Your task to perform on an android device: Open settings on Google Maps Image 0: 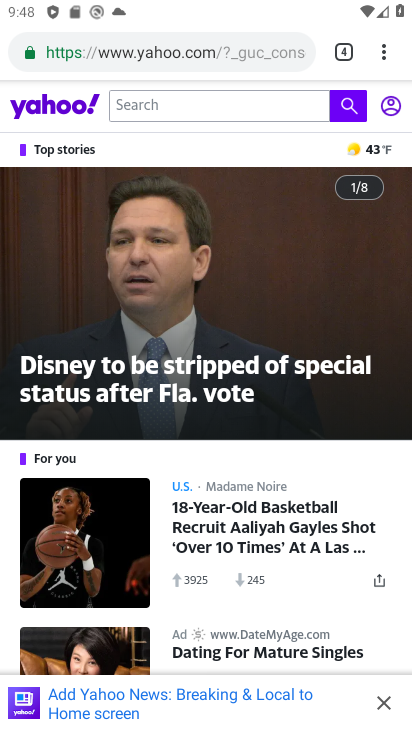
Step 0: press home button
Your task to perform on an android device: Open settings on Google Maps Image 1: 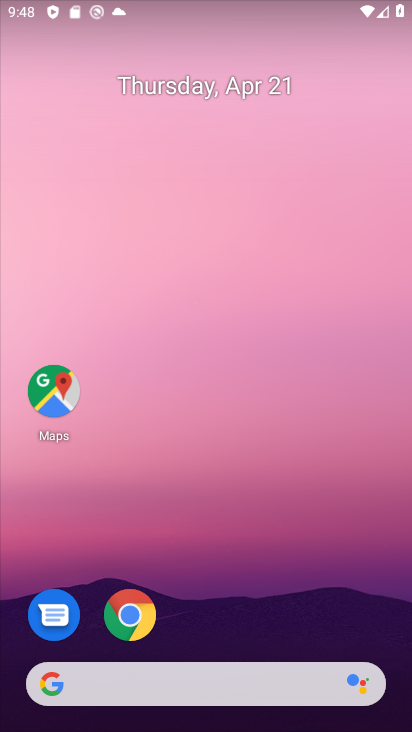
Step 1: drag from (196, 700) to (200, 121)
Your task to perform on an android device: Open settings on Google Maps Image 2: 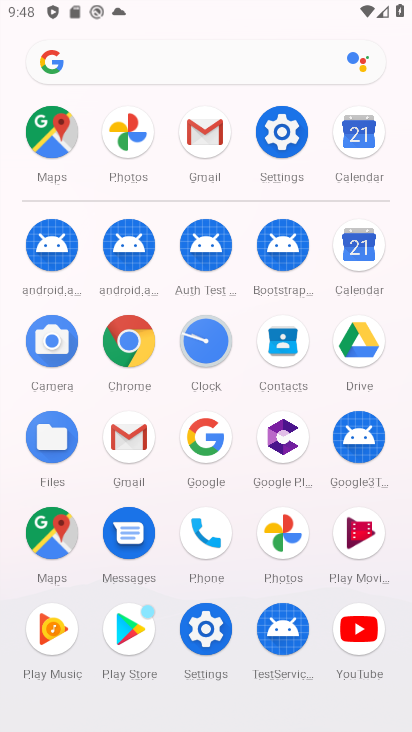
Step 2: click (51, 529)
Your task to perform on an android device: Open settings on Google Maps Image 3: 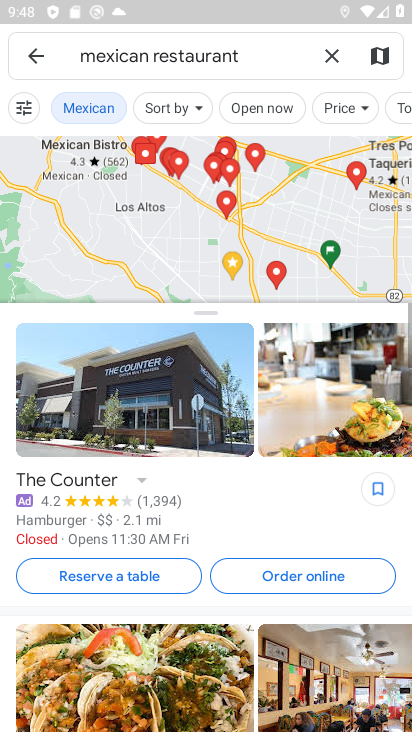
Step 3: click (35, 57)
Your task to perform on an android device: Open settings on Google Maps Image 4: 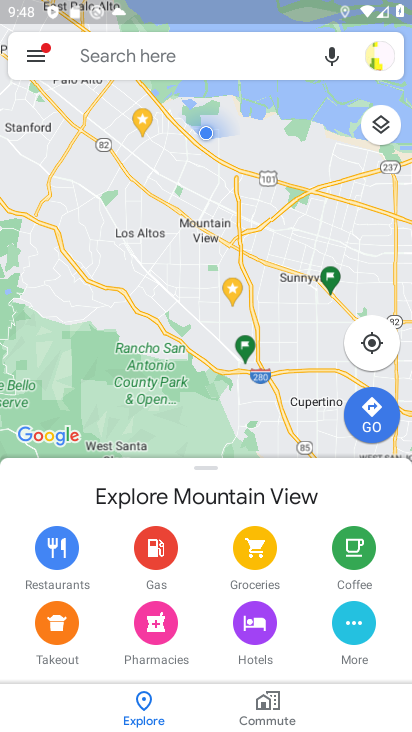
Step 4: click (37, 58)
Your task to perform on an android device: Open settings on Google Maps Image 5: 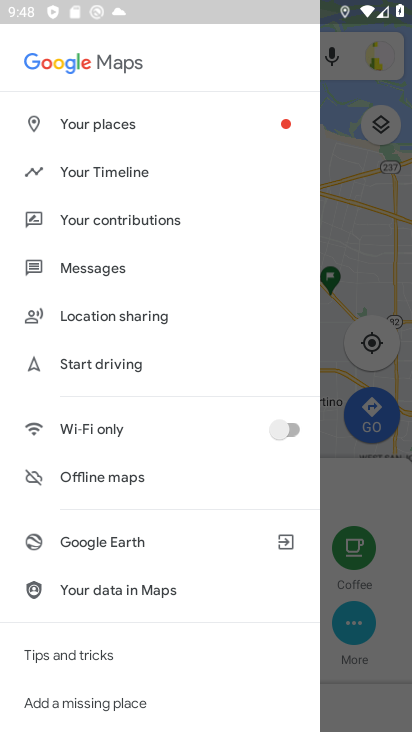
Step 5: drag from (85, 680) to (100, 272)
Your task to perform on an android device: Open settings on Google Maps Image 6: 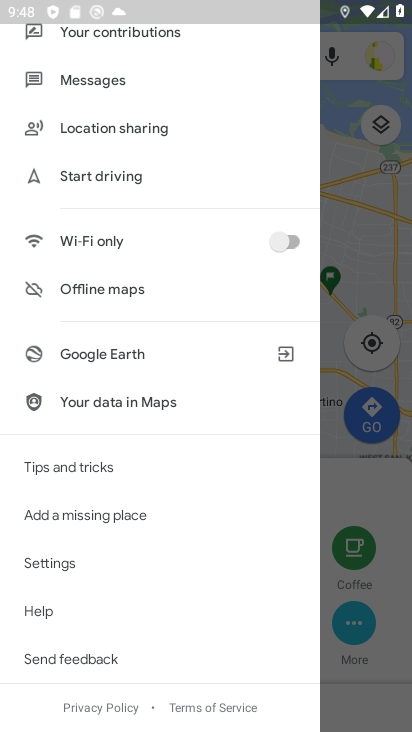
Step 6: click (64, 561)
Your task to perform on an android device: Open settings on Google Maps Image 7: 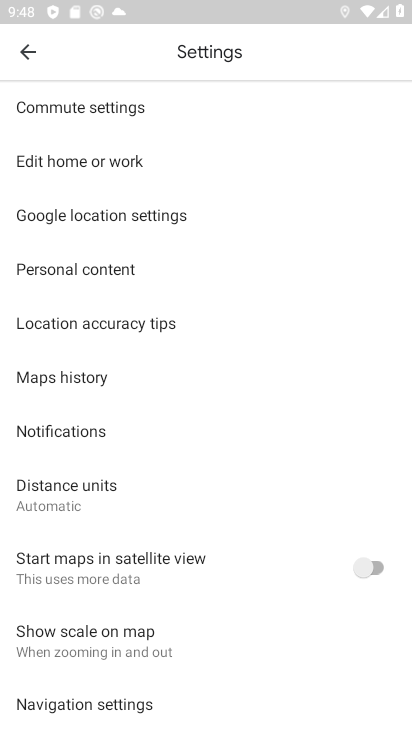
Step 7: task complete